Your task to perform on an android device: empty trash in the gmail app Image 0: 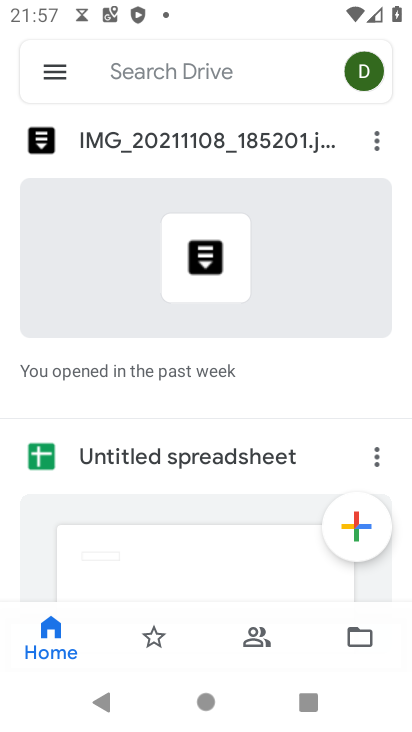
Step 0: press home button
Your task to perform on an android device: empty trash in the gmail app Image 1: 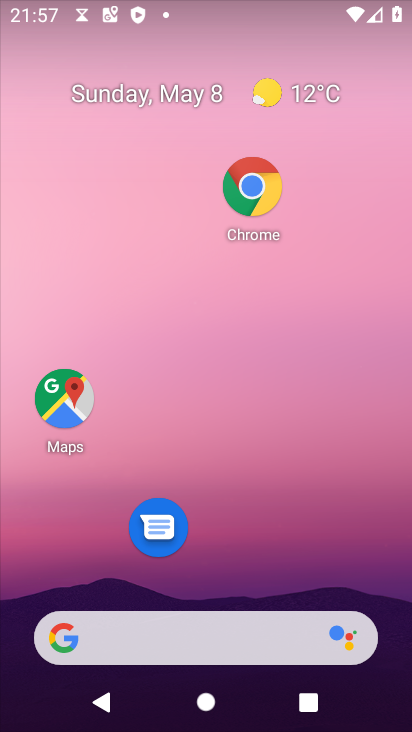
Step 1: drag from (288, 592) to (334, 336)
Your task to perform on an android device: empty trash in the gmail app Image 2: 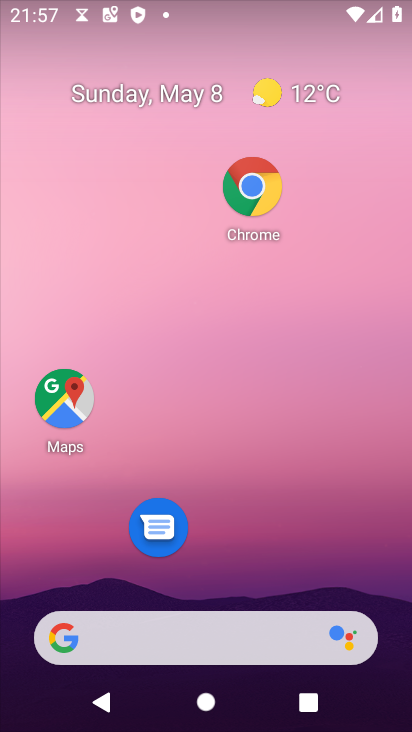
Step 2: drag from (286, 566) to (331, 308)
Your task to perform on an android device: empty trash in the gmail app Image 3: 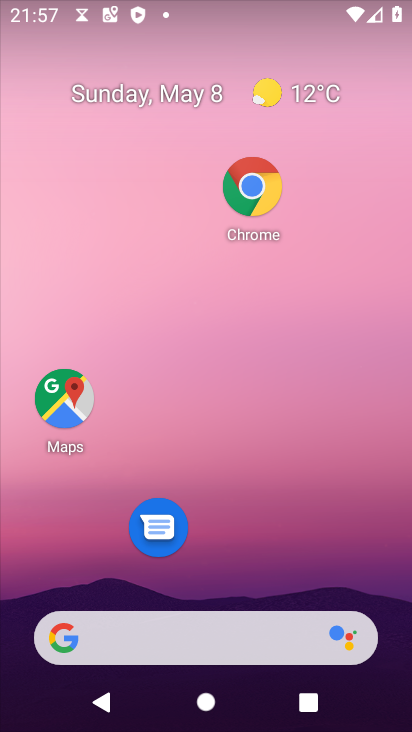
Step 3: drag from (305, 509) to (339, 266)
Your task to perform on an android device: empty trash in the gmail app Image 4: 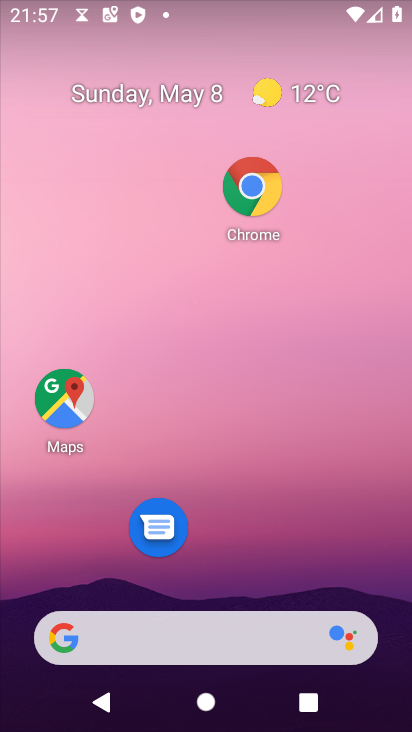
Step 4: drag from (252, 593) to (332, 163)
Your task to perform on an android device: empty trash in the gmail app Image 5: 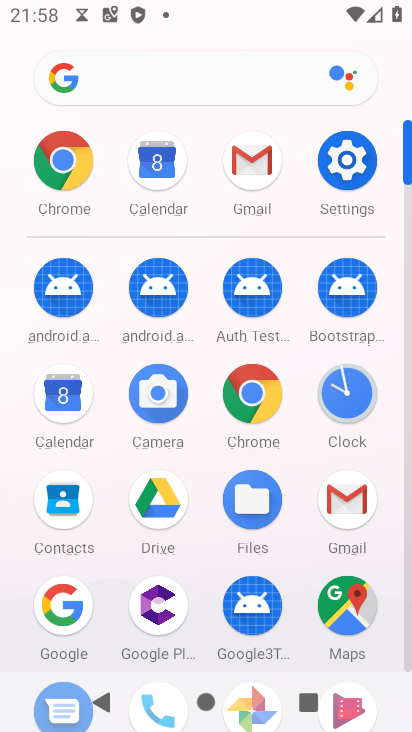
Step 5: click (343, 480)
Your task to perform on an android device: empty trash in the gmail app Image 6: 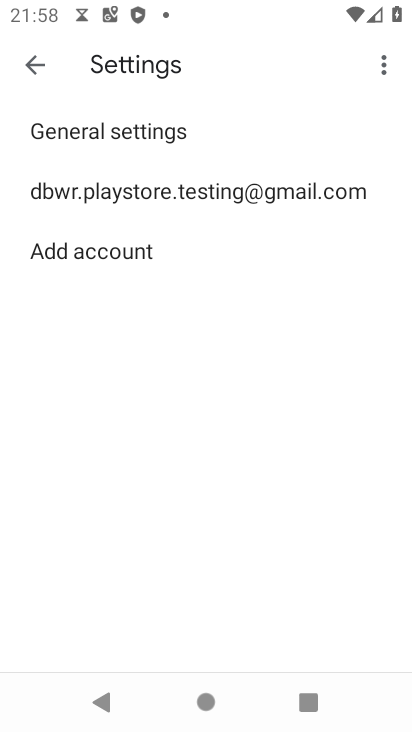
Step 6: click (120, 189)
Your task to perform on an android device: empty trash in the gmail app Image 7: 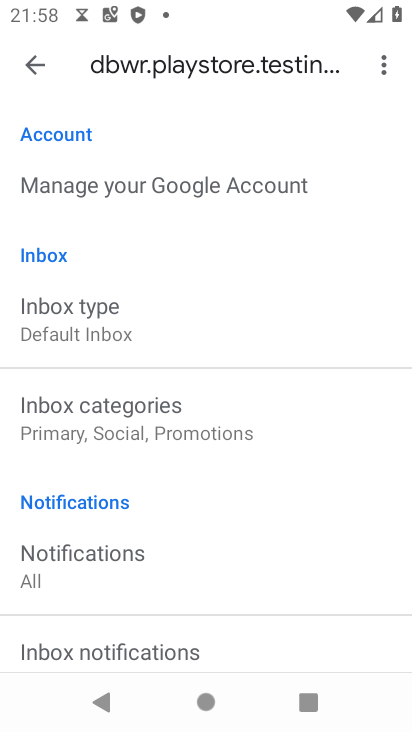
Step 7: drag from (220, 627) to (271, 353)
Your task to perform on an android device: empty trash in the gmail app Image 8: 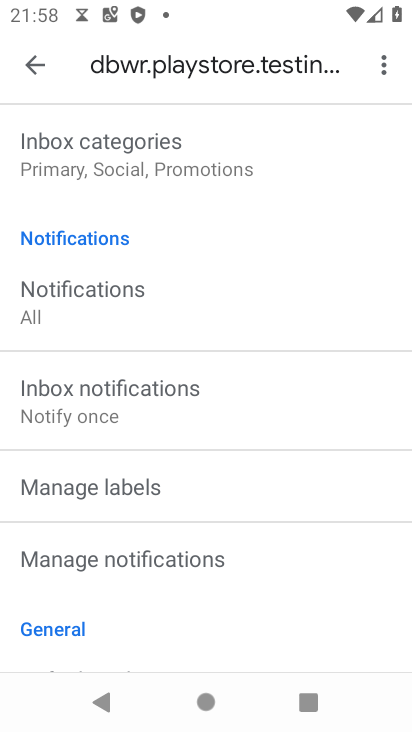
Step 8: drag from (212, 553) to (354, 136)
Your task to perform on an android device: empty trash in the gmail app Image 9: 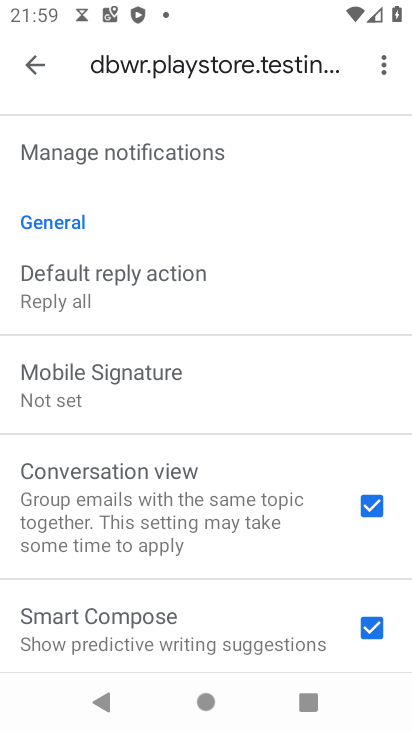
Step 9: click (32, 52)
Your task to perform on an android device: empty trash in the gmail app Image 10: 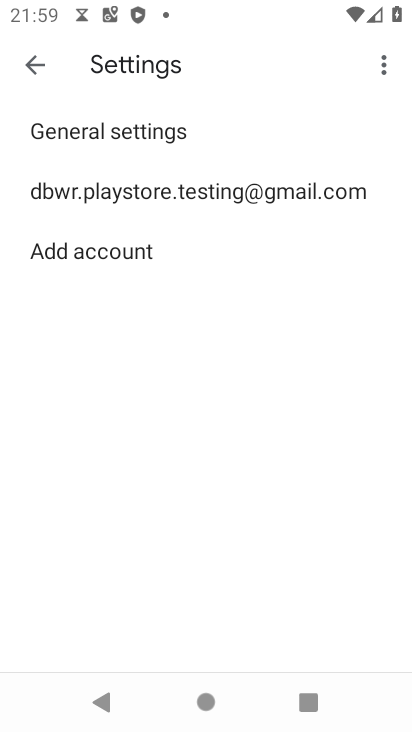
Step 10: click (16, 73)
Your task to perform on an android device: empty trash in the gmail app Image 11: 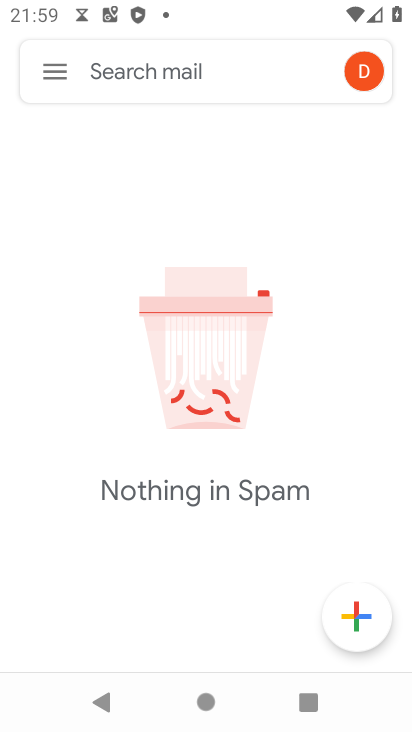
Step 11: click (58, 83)
Your task to perform on an android device: empty trash in the gmail app Image 12: 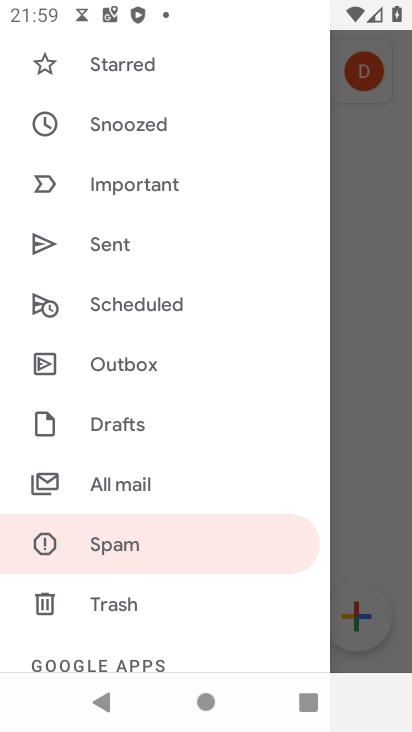
Step 12: click (118, 608)
Your task to perform on an android device: empty trash in the gmail app Image 13: 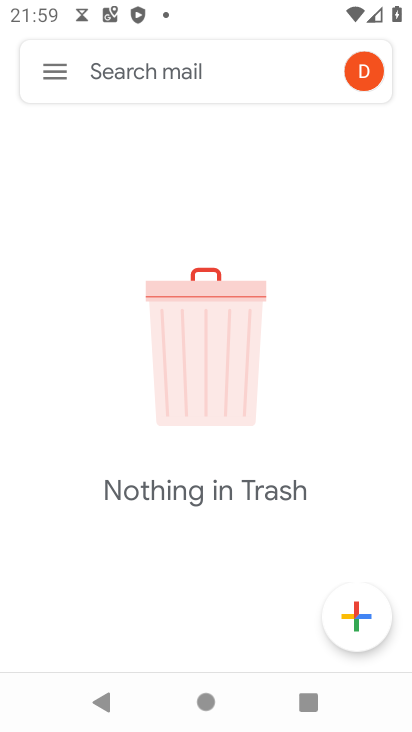
Step 13: task complete